Your task to perform on an android device: find photos in the google photos app Image 0: 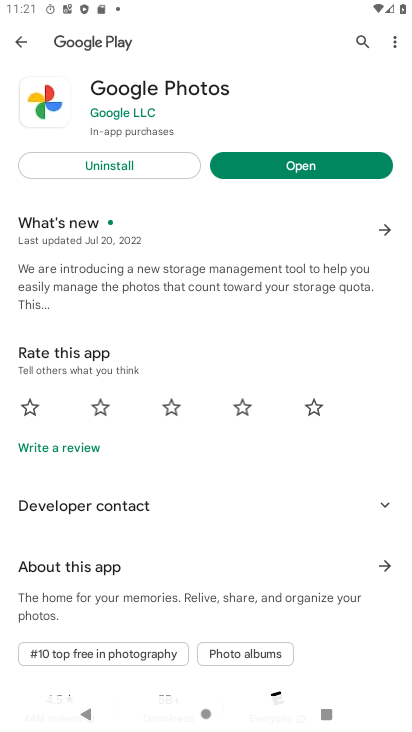
Step 0: click (302, 168)
Your task to perform on an android device: find photos in the google photos app Image 1: 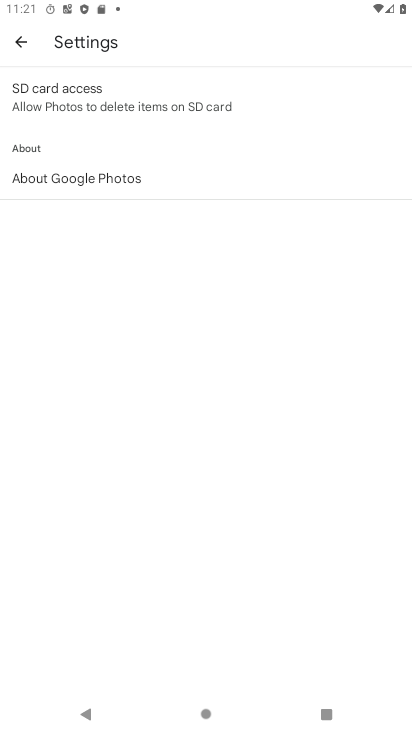
Step 1: click (18, 44)
Your task to perform on an android device: find photos in the google photos app Image 2: 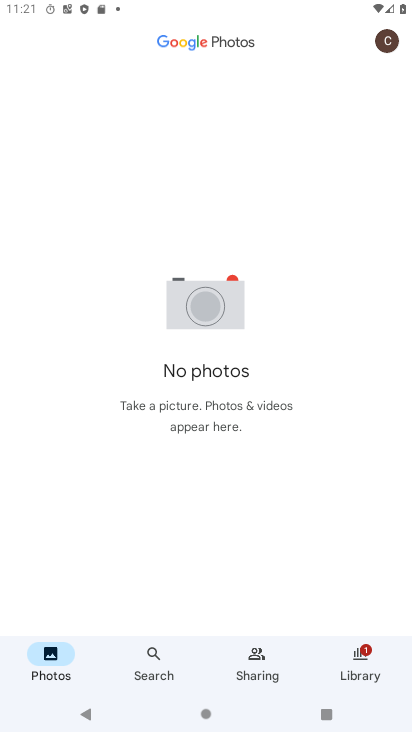
Step 2: task complete